Your task to perform on an android device: change the clock display to analog Image 0: 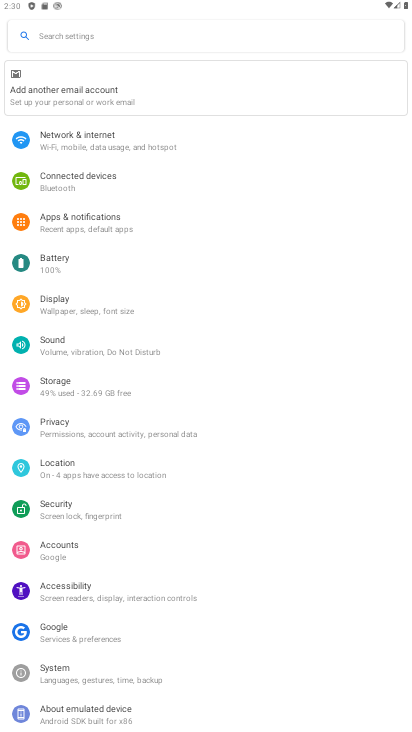
Step 0: press home button
Your task to perform on an android device: change the clock display to analog Image 1: 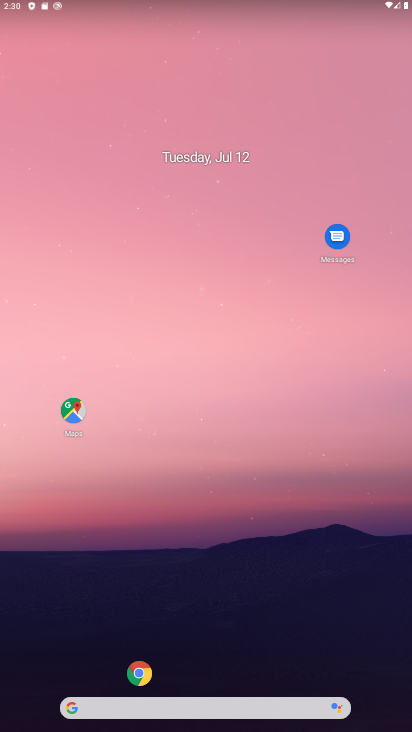
Step 1: drag from (89, 615) to (131, 0)
Your task to perform on an android device: change the clock display to analog Image 2: 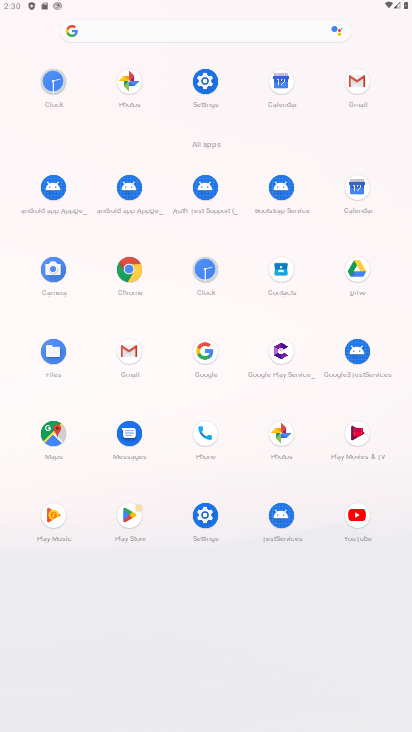
Step 2: click (215, 517)
Your task to perform on an android device: change the clock display to analog Image 3: 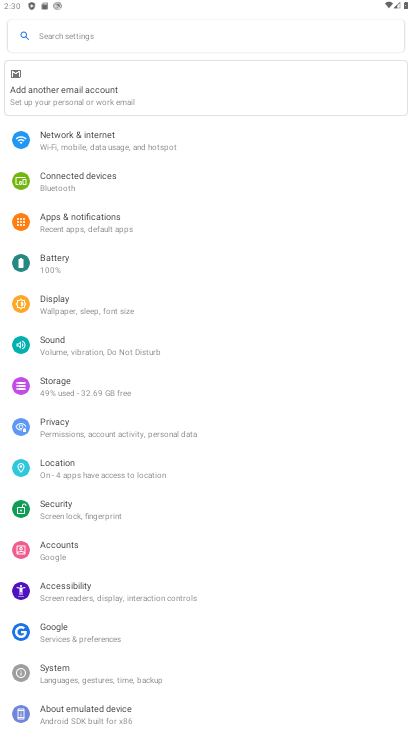
Step 3: press home button
Your task to perform on an android device: change the clock display to analog Image 4: 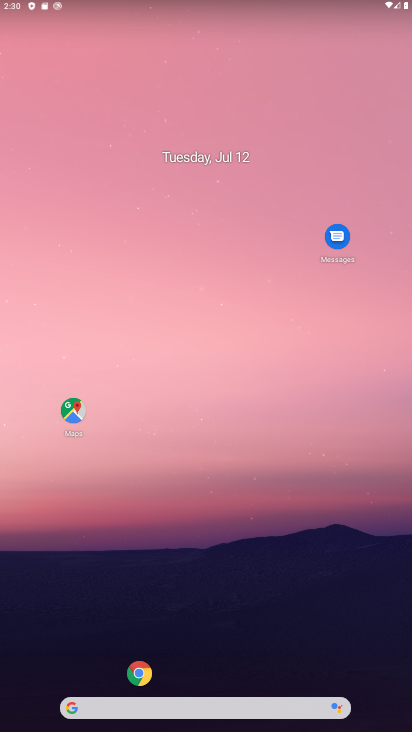
Step 4: drag from (58, 657) to (140, 255)
Your task to perform on an android device: change the clock display to analog Image 5: 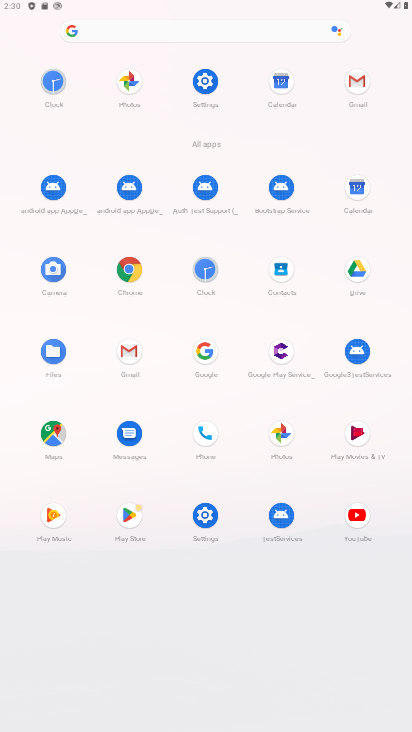
Step 5: click (211, 280)
Your task to perform on an android device: change the clock display to analog Image 6: 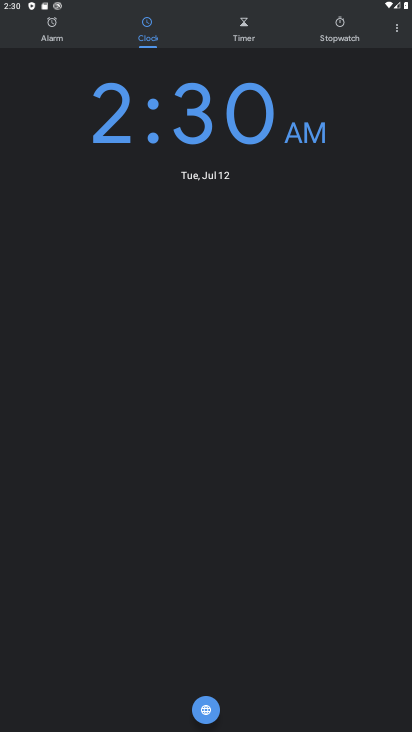
Step 6: click (396, 30)
Your task to perform on an android device: change the clock display to analog Image 7: 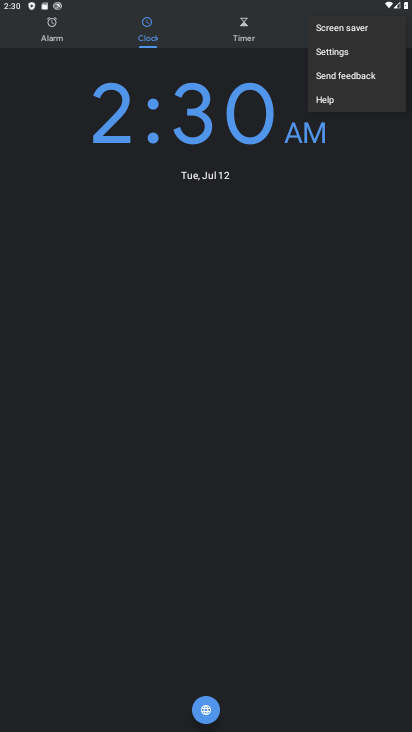
Step 7: click (328, 52)
Your task to perform on an android device: change the clock display to analog Image 8: 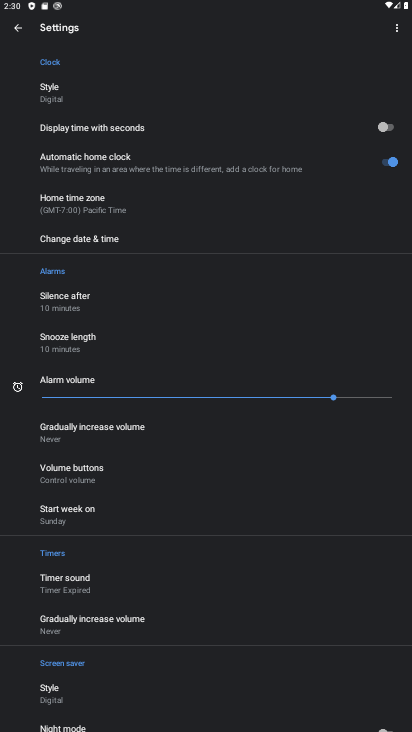
Step 8: click (60, 94)
Your task to perform on an android device: change the clock display to analog Image 9: 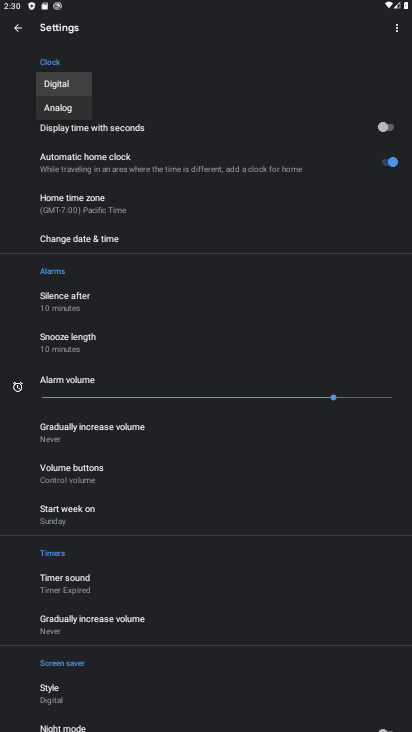
Step 9: click (65, 104)
Your task to perform on an android device: change the clock display to analog Image 10: 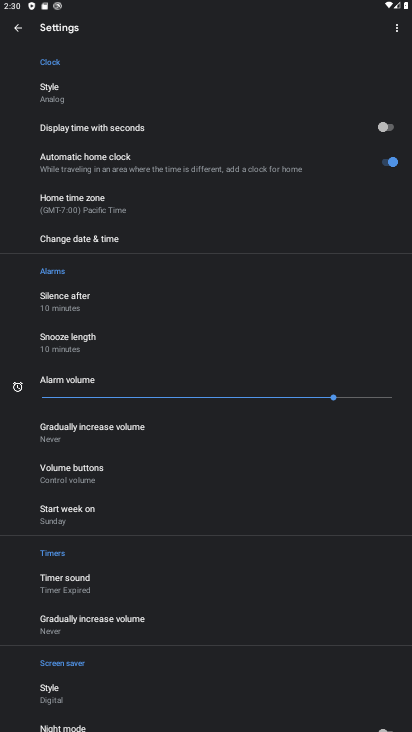
Step 10: task complete